Your task to perform on an android device: Open the calendar and show me this week's events Image 0: 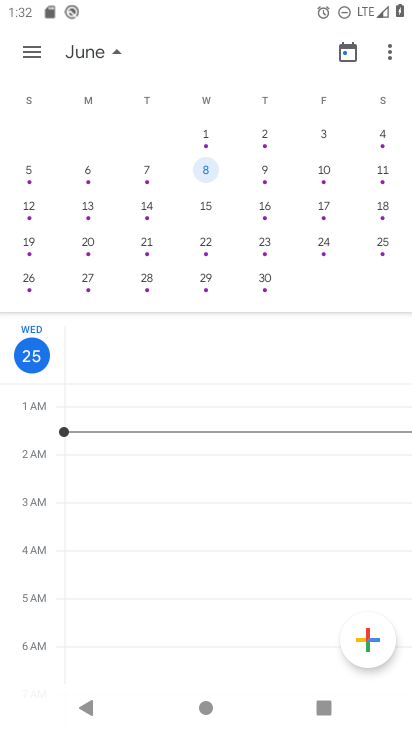
Step 0: press home button
Your task to perform on an android device: Open the calendar and show me this week's events Image 1: 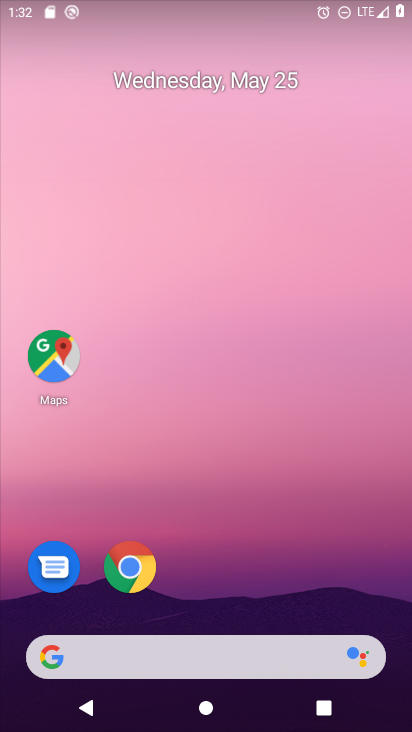
Step 1: drag from (397, 697) to (380, 217)
Your task to perform on an android device: Open the calendar and show me this week's events Image 2: 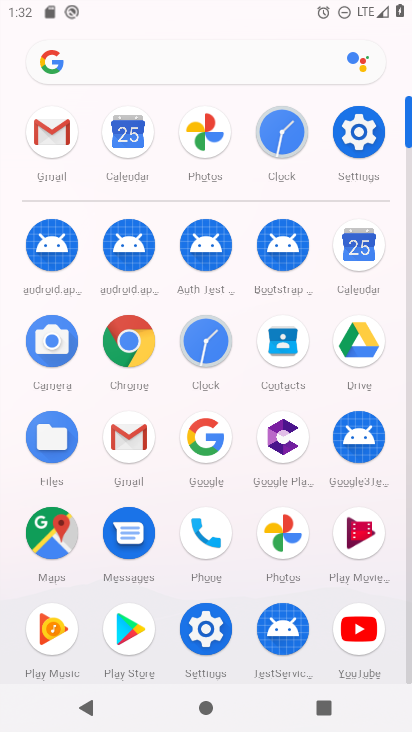
Step 2: click (349, 255)
Your task to perform on an android device: Open the calendar and show me this week's events Image 3: 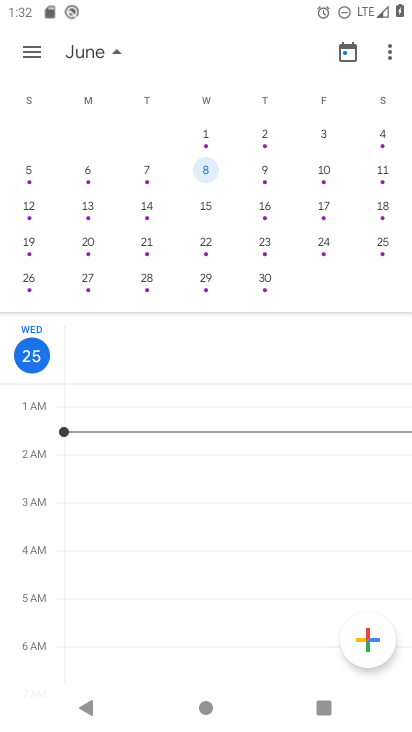
Step 3: drag from (9, 144) to (358, 161)
Your task to perform on an android device: Open the calendar and show me this week's events Image 4: 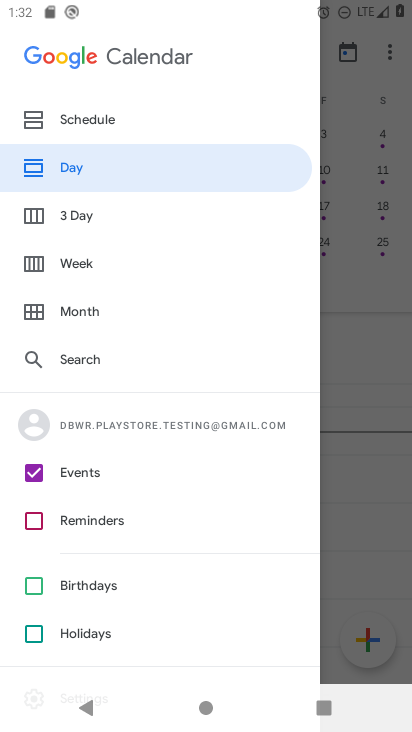
Step 4: press back button
Your task to perform on an android device: Open the calendar and show me this week's events Image 5: 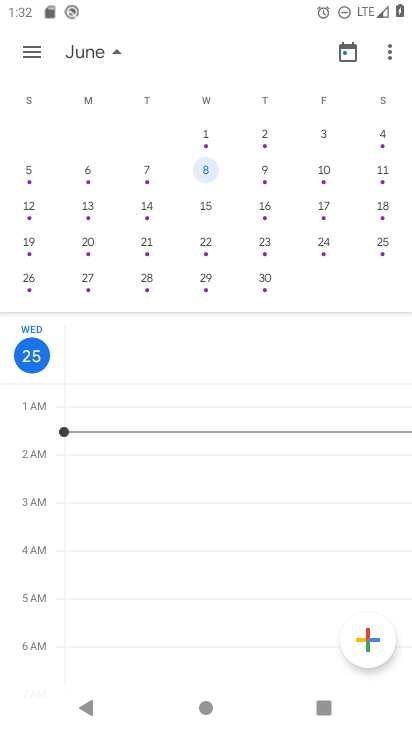
Step 5: drag from (69, 137) to (366, 126)
Your task to perform on an android device: Open the calendar and show me this week's events Image 6: 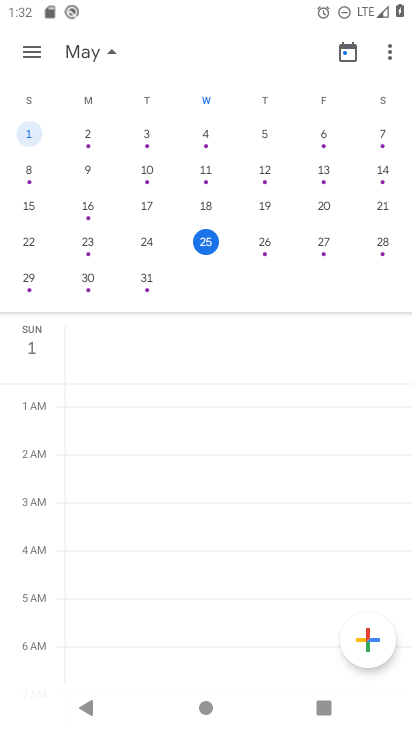
Step 6: click (255, 245)
Your task to perform on an android device: Open the calendar and show me this week's events Image 7: 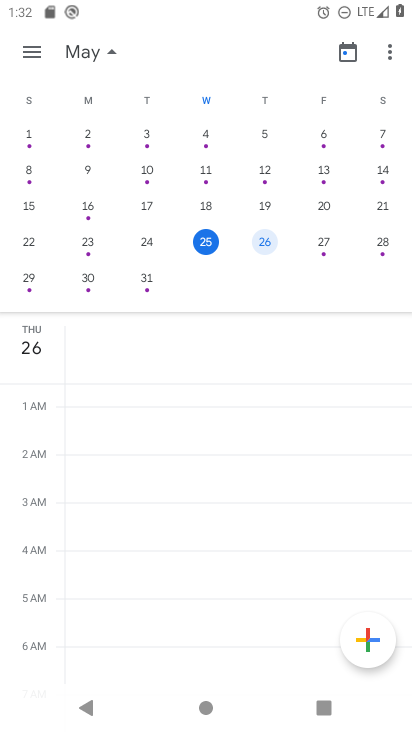
Step 7: click (29, 49)
Your task to perform on an android device: Open the calendar and show me this week's events Image 8: 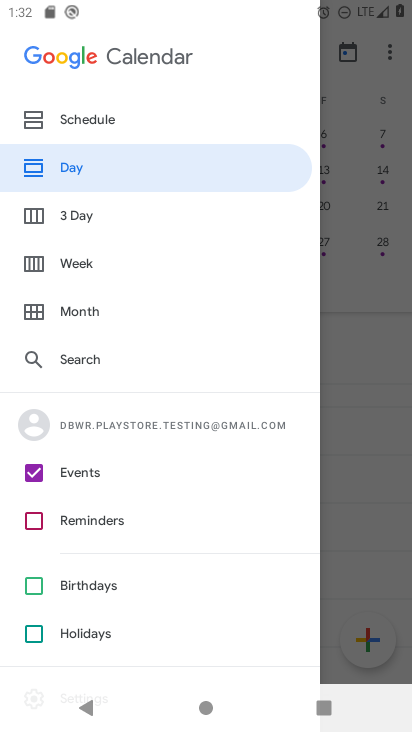
Step 8: click (74, 259)
Your task to perform on an android device: Open the calendar and show me this week's events Image 9: 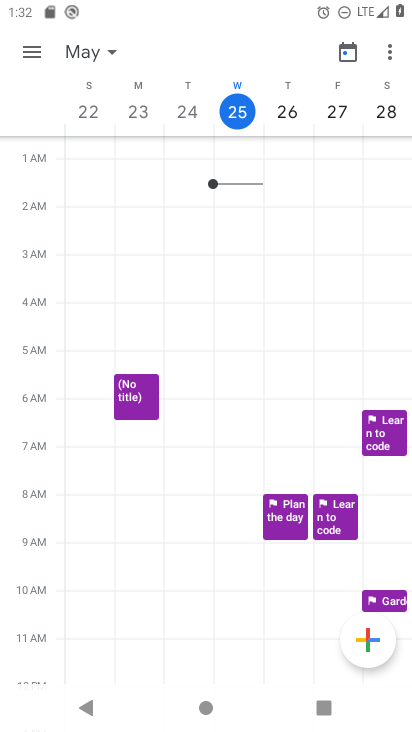
Step 9: task complete